Your task to perform on an android device: Open calendar and show me the first week of next month Image 0: 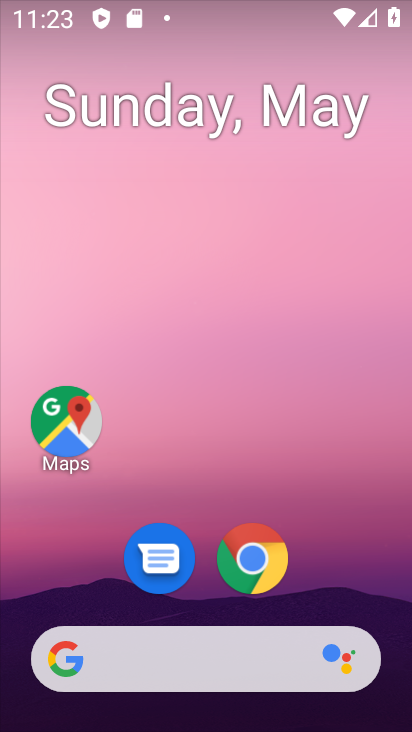
Step 0: drag from (395, 571) to (376, 99)
Your task to perform on an android device: Open calendar and show me the first week of next month Image 1: 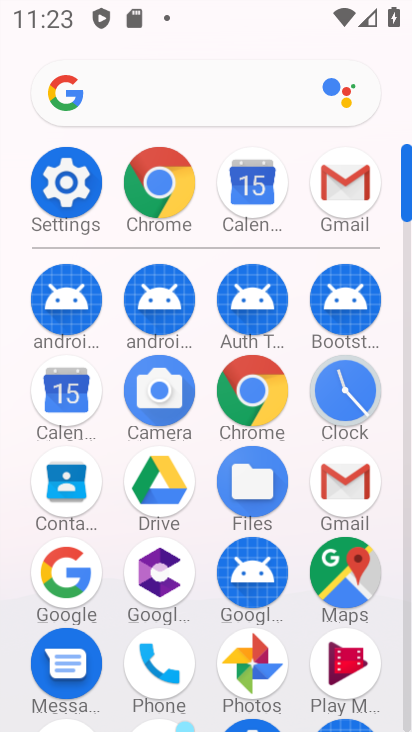
Step 1: click (72, 408)
Your task to perform on an android device: Open calendar and show me the first week of next month Image 2: 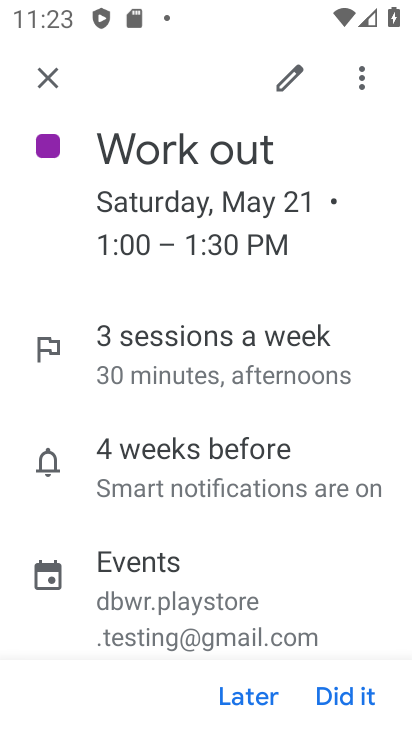
Step 2: click (53, 70)
Your task to perform on an android device: Open calendar and show me the first week of next month Image 3: 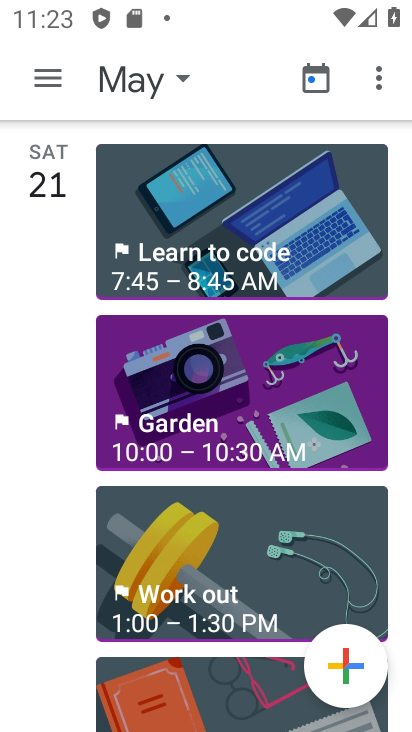
Step 3: click (173, 81)
Your task to perform on an android device: Open calendar and show me the first week of next month Image 4: 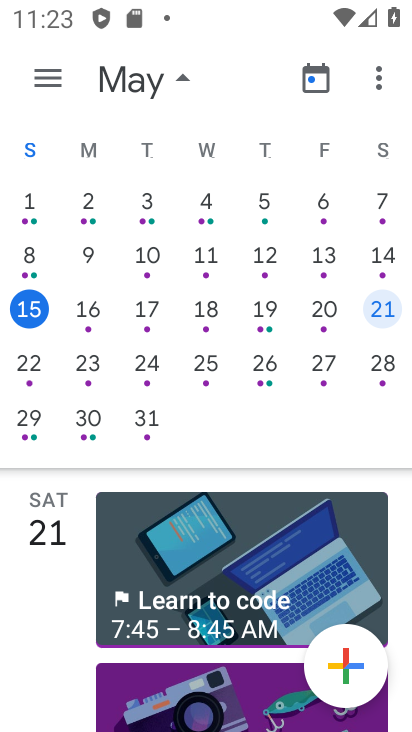
Step 4: task complete